Your task to perform on an android device: Go to wifi settings Image 0: 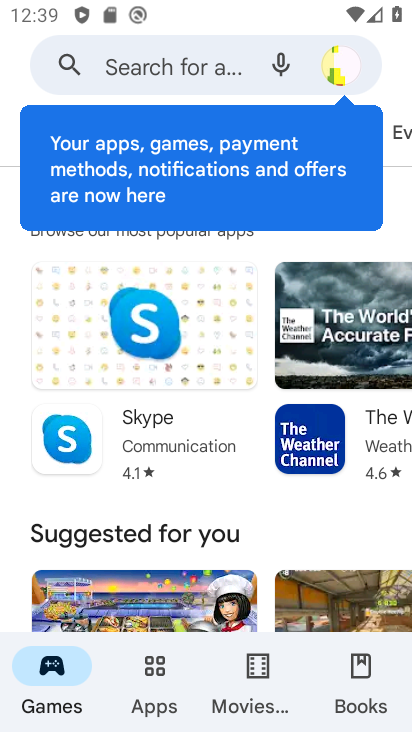
Step 0: press home button
Your task to perform on an android device: Go to wifi settings Image 1: 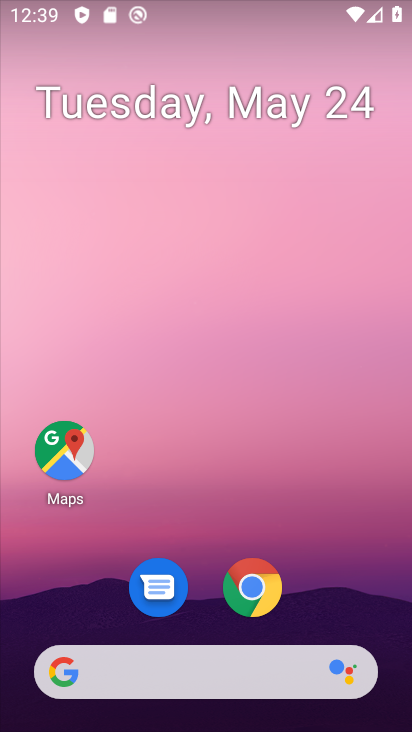
Step 1: drag from (251, 658) to (260, 341)
Your task to perform on an android device: Go to wifi settings Image 2: 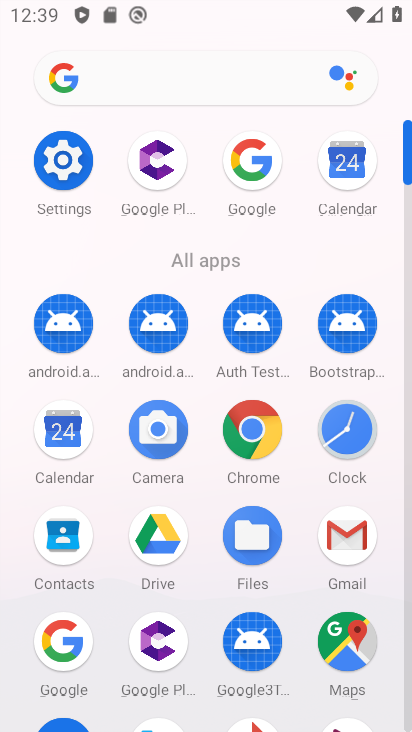
Step 2: click (86, 190)
Your task to perform on an android device: Go to wifi settings Image 3: 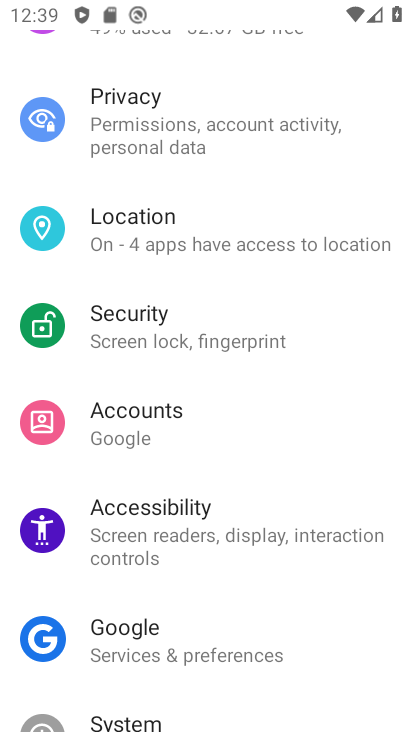
Step 3: drag from (159, 104) to (214, 547)
Your task to perform on an android device: Go to wifi settings Image 4: 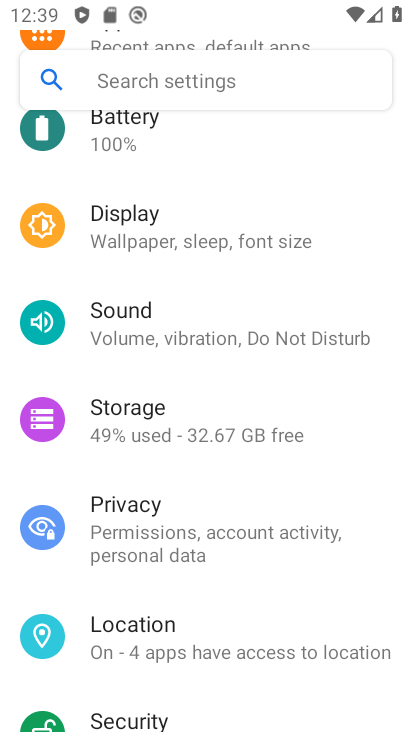
Step 4: drag from (187, 419) to (242, 587)
Your task to perform on an android device: Go to wifi settings Image 5: 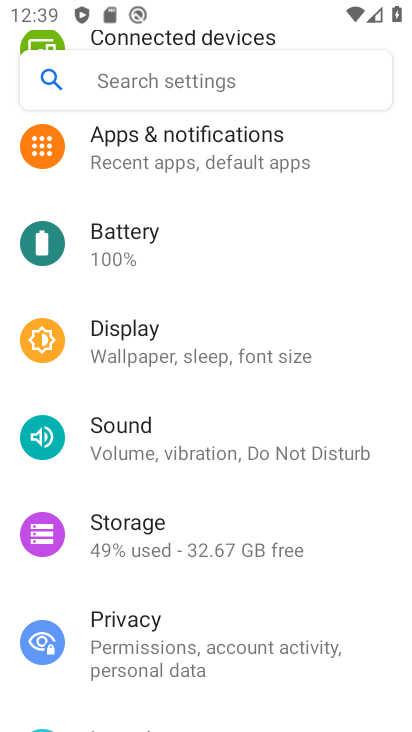
Step 5: drag from (150, 202) to (214, 529)
Your task to perform on an android device: Go to wifi settings Image 6: 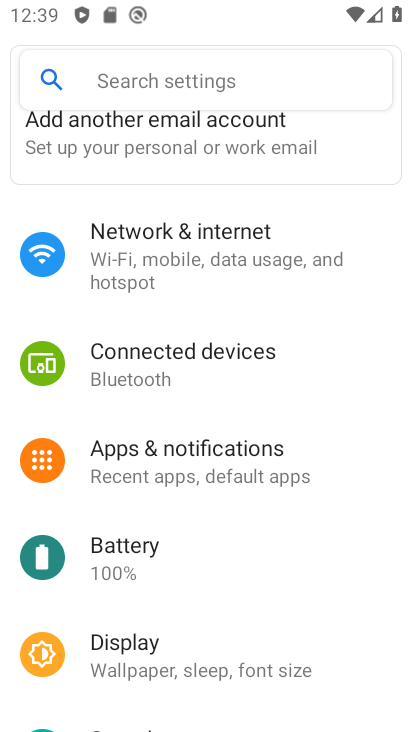
Step 6: click (174, 228)
Your task to perform on an android device: Go to wifi settings Image 7: 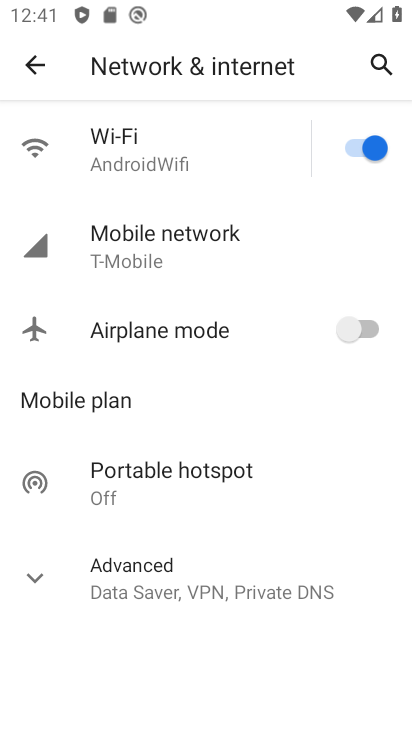
Step 7: click (148, 156)
Your task to perform on an android device: Go to wifi settings Image 8: 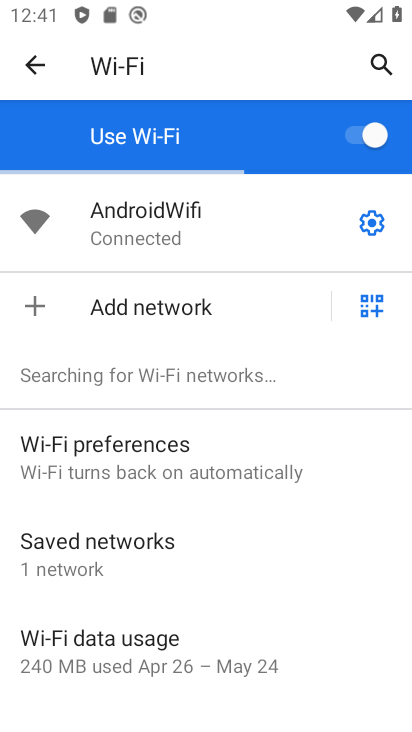
Step 8: task complete